Your task to perform on an android device: Open settings Image 0: 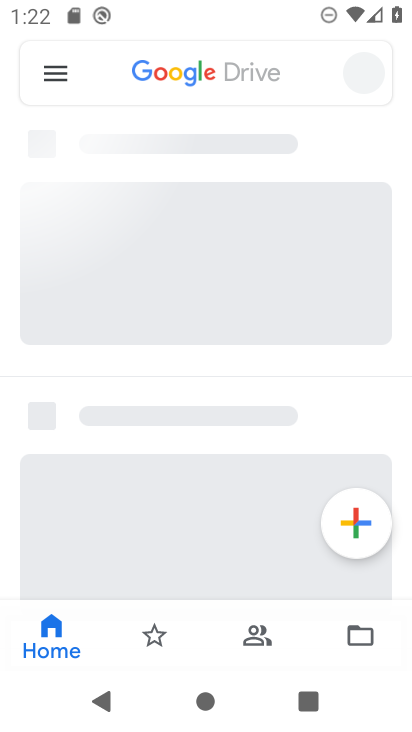
Step 0: drag from (216, 624) to (355, 109)
Your task to perform on an android device: Open settings Image 1: 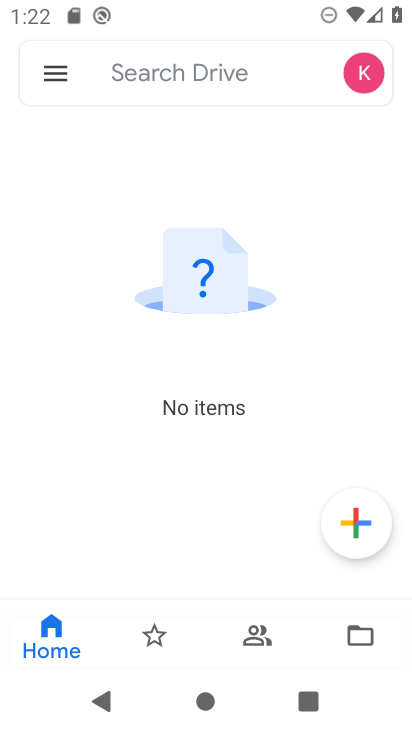
Step 1: press home button
Your task to perform on an android device: Open settings Image 2: 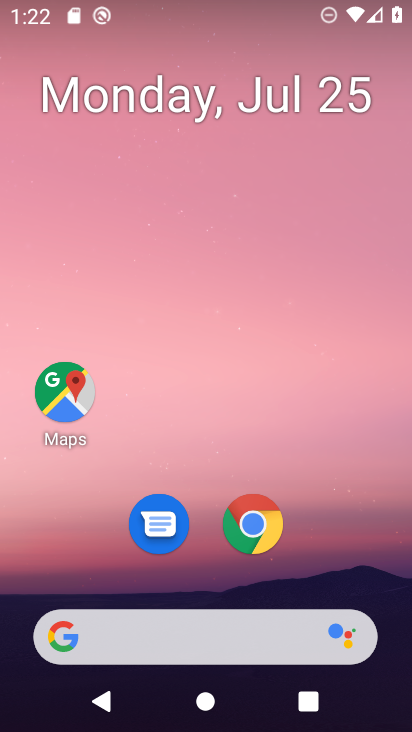
Step 2: drag from (204, 640) to (407, 0)
Your task to perform on an android device: Open settings Image 3: 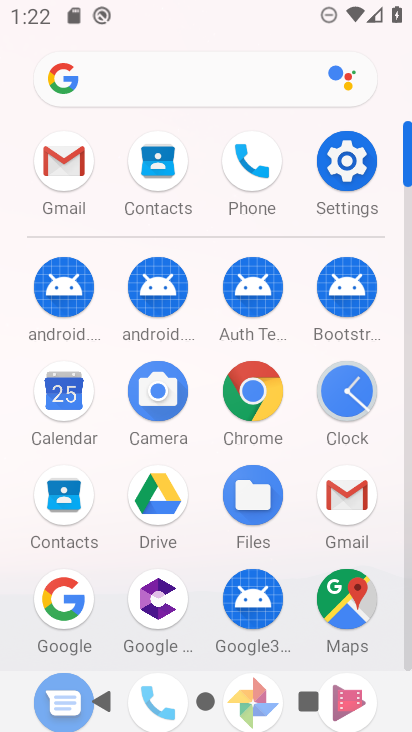
Step 3: click (351, 157)
Your task to perform on an android device: Open settings Image 4: 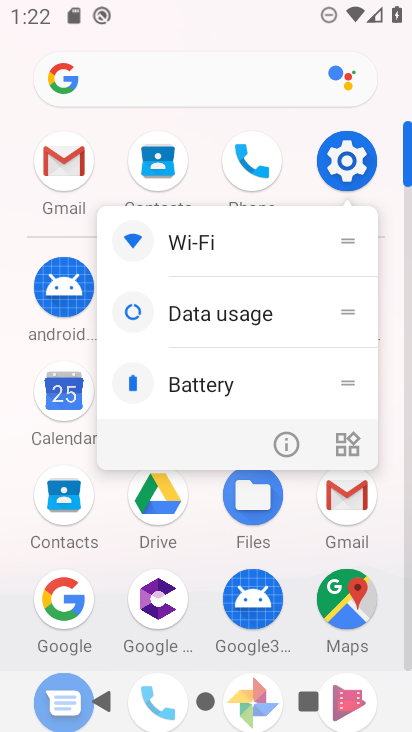
Step 4: click (350, 165)
Your task to perform on an android device: Open settings Image 5: 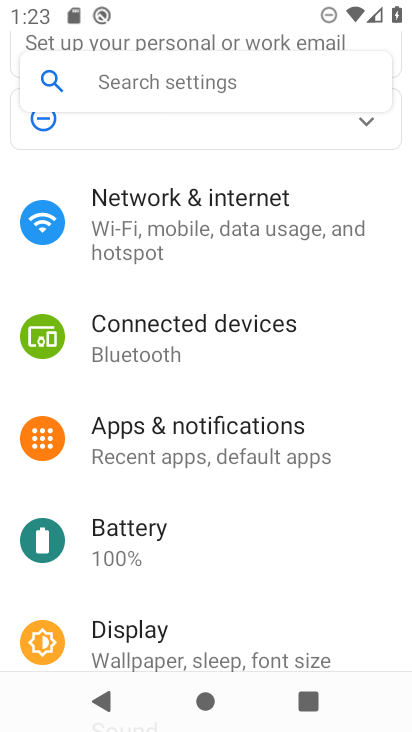
Step 5: task complete